Your task to perform on an android device: Go to sound settings Image 0: 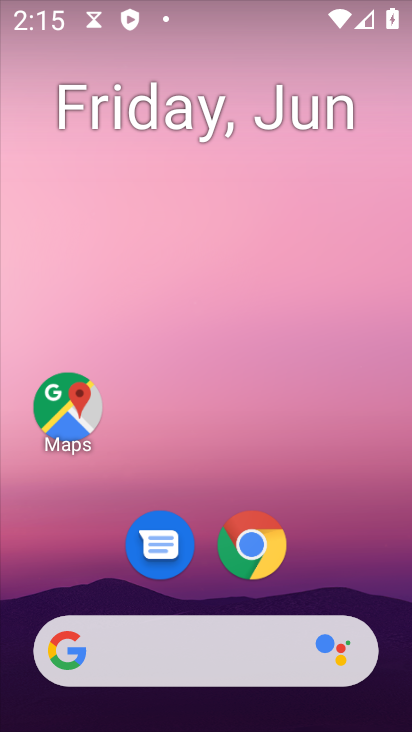
Step 0: drag from (206, 594) to (252, 18)
Your task to perform on an android device: Go to sound settings Image 1: 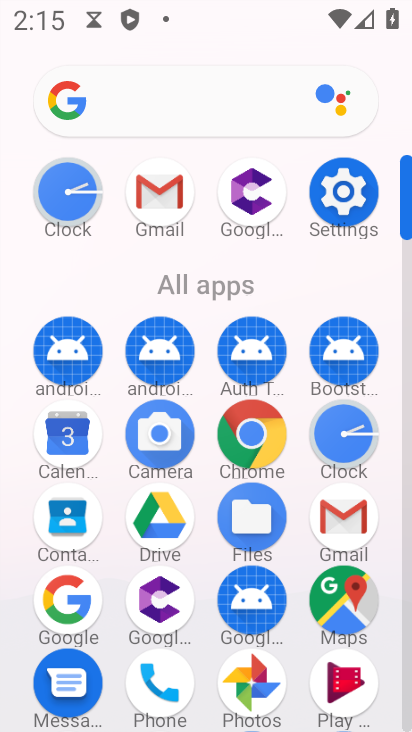
Step 1: click (332, 228)
Your task to perform on an android device: Go to sound settings Image 2: 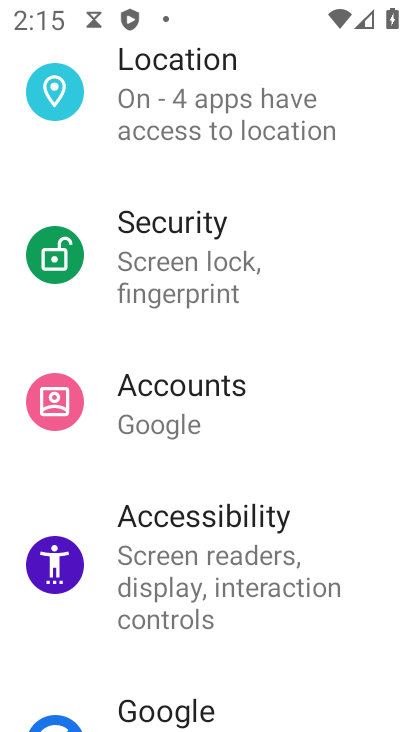
Step 2: drag from (230, 283) to (202, 695)
Your task to perform on an android device: Go to sound settings Image 3: 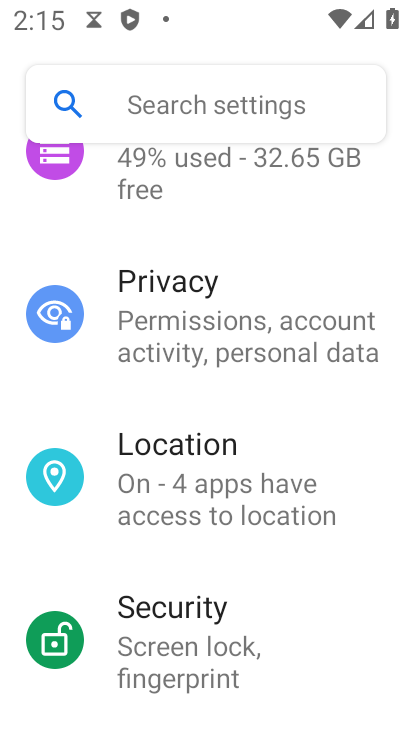
Step 3: drag from (231, 229) to (215, 722)
Your task to perform on an android device: Go to sound settings Image 4: 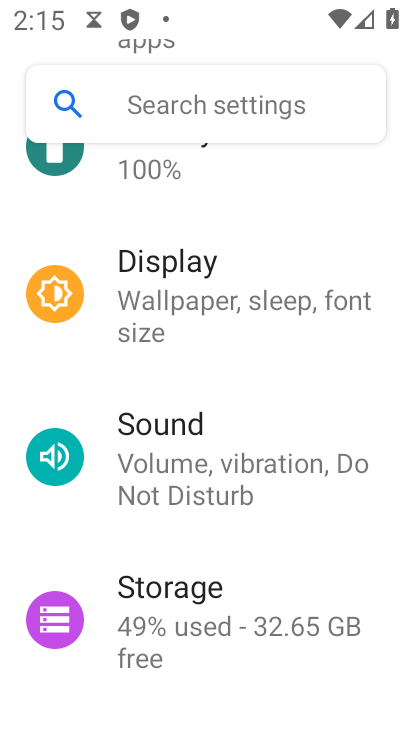
Step 4: click (198, 463)
Your task to perform on an android device: Go to sound settings Image 5: 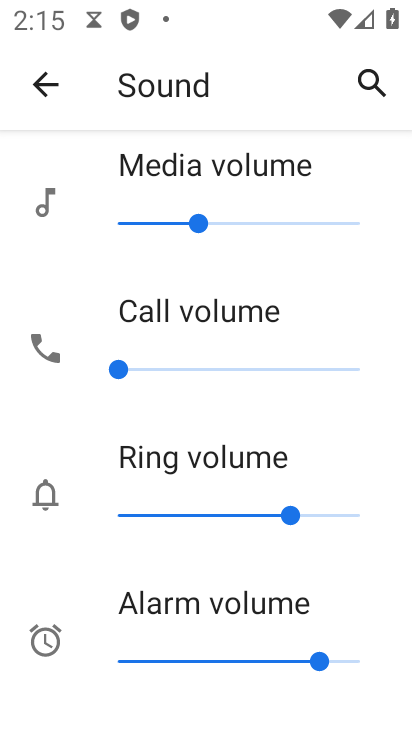
Step 5: task complete